Your task to perform on an android device: turn off location history Image 0: 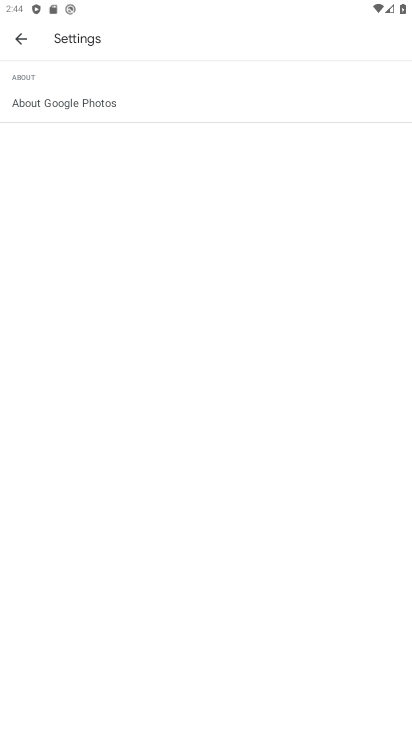
Step 0: press home button
Your task to perform on an android device: turn off location history Image 1: 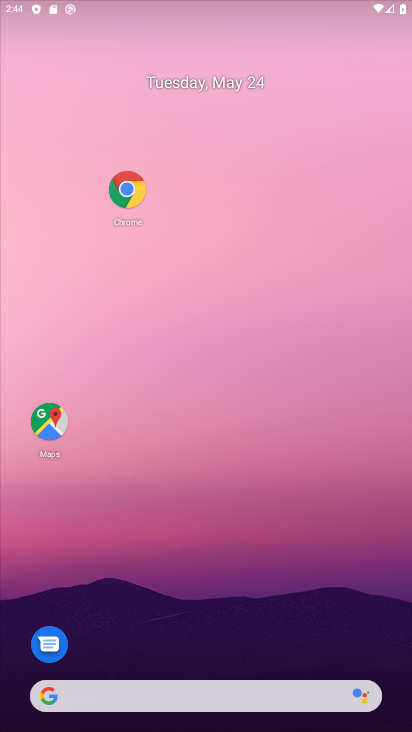
Step 1: drag from (228, 609) to (291, 92)
Your task to perform on an android device: turn off location history Image 2: 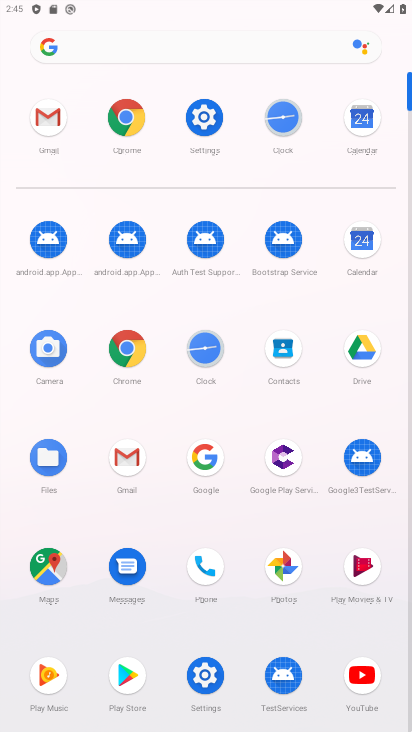
Step 2: click (204, 96)
Your task to perform on an android device: turn off location history Image 3: 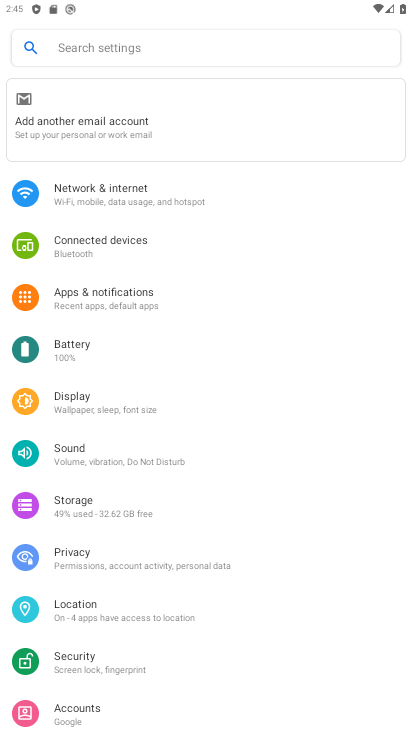
Step 3: click (90, 603)
Your task to perform on an android device: turn off location history Image 4: 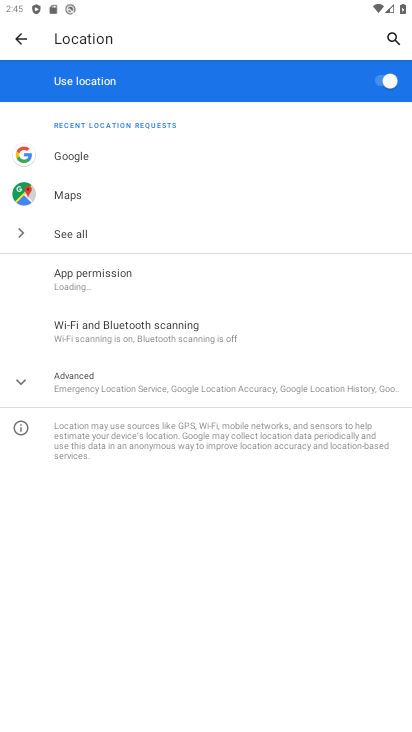
Step 4: click (106, 384)
Your task to perform on an android device: turn off location history Image 5: 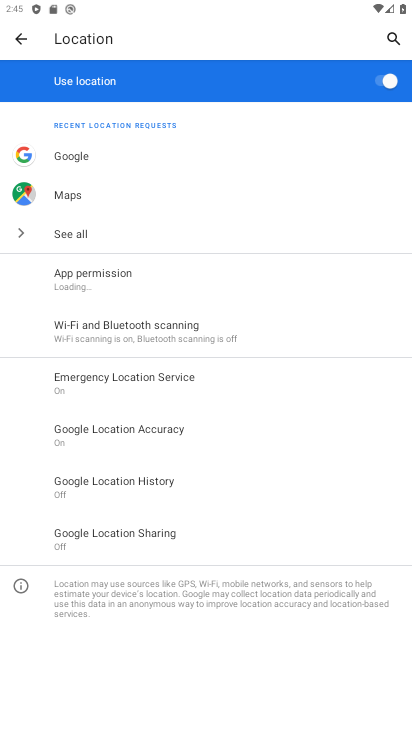
Step 5: click (146, 478)
Your task to perform on an android device: turn off location history Image 6: 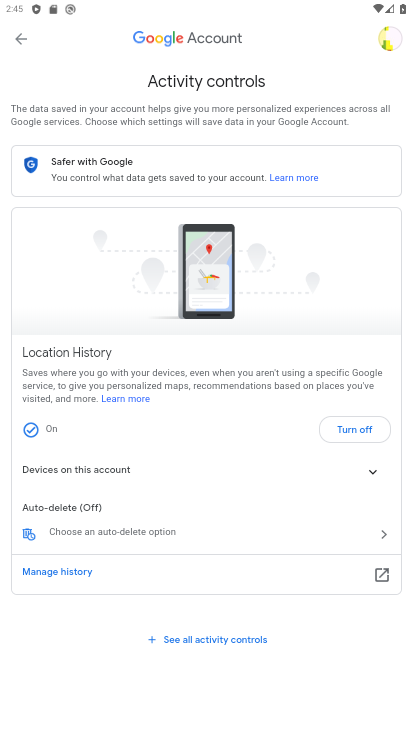
Step 6: click (356, 426)
Your task to perform on an android device: turn off location history Image 7: 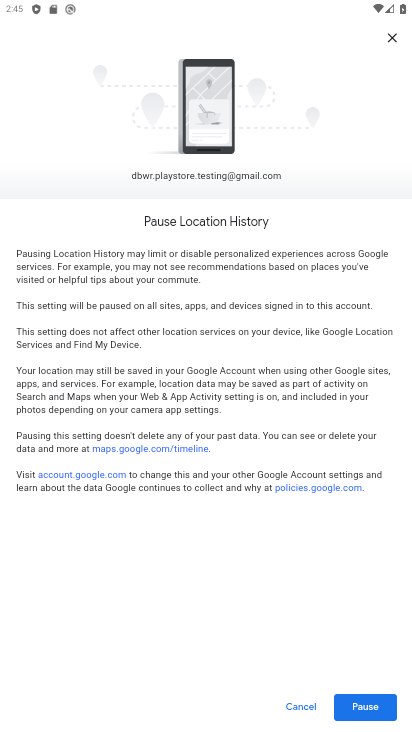
Step 7: click (366, 710)
Your task to perform on an android device: turn off location history Image 8: 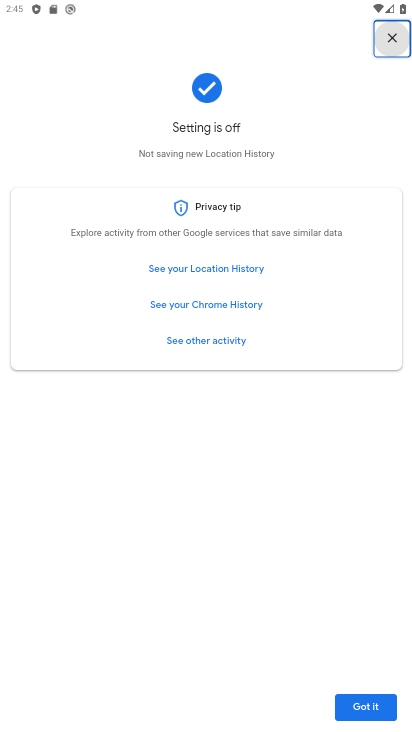
Step 8: click (366, 710)
Your task to perform on an android device: turn off location history Image 9: 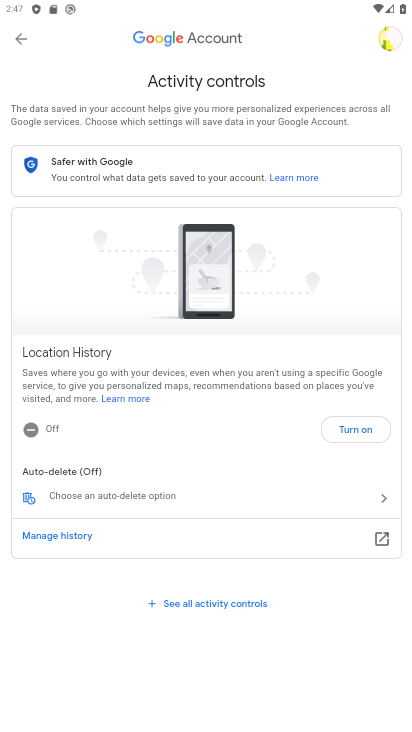
Step 9: task complete